Your task to perform on an android device: stop showing notifications on the lock screen Image 0: 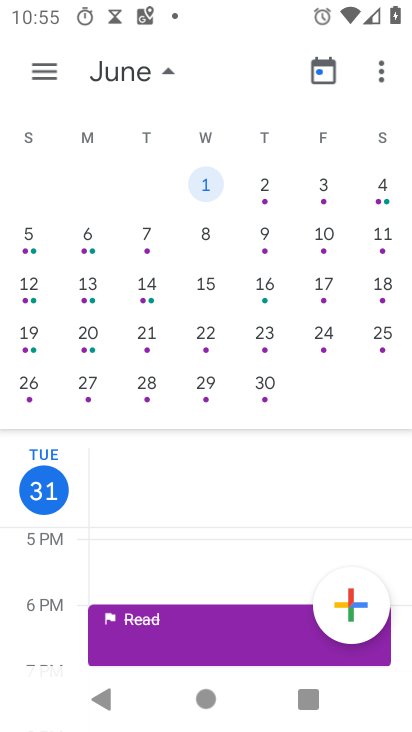
Step 0: press home button
Your task to perform on an android device: stop showing notifications on the lock screen Image 1: 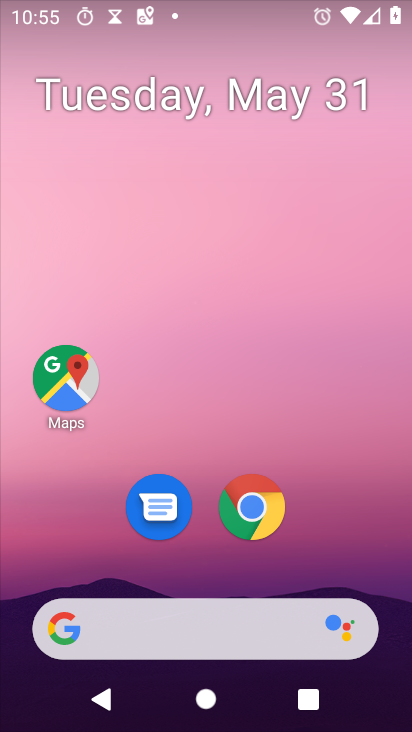
Step 1: drag from (16, 527) to (271, 140)
Your task to perform on an android device: stop showing notifications on the lock screen Image 2: 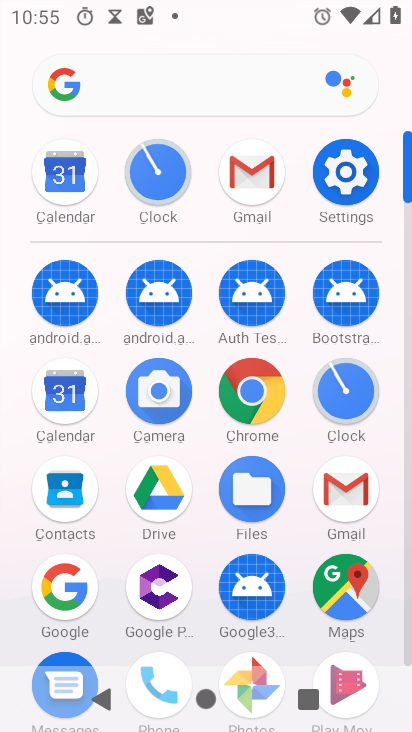
Step 2: click (354, 179)
Your task to perform on an android device: stop showing notifications on the lock screen Image 3: 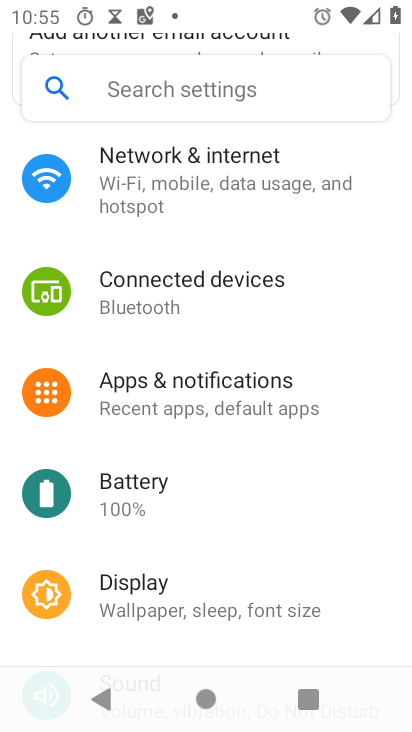
Step 3: click (182, 384)
Your task to perform on an android device: stop showing notifications on the lock screen Image 4: 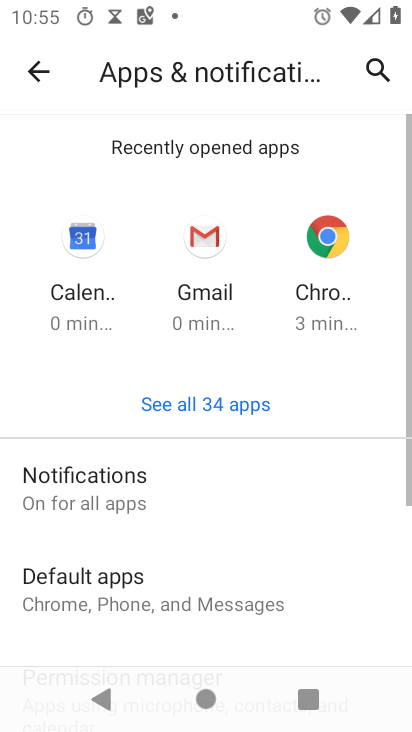
Step 4: click (126, 481)
Your task to perform on an android device: stop showing notifications on the lock screen Image 5: 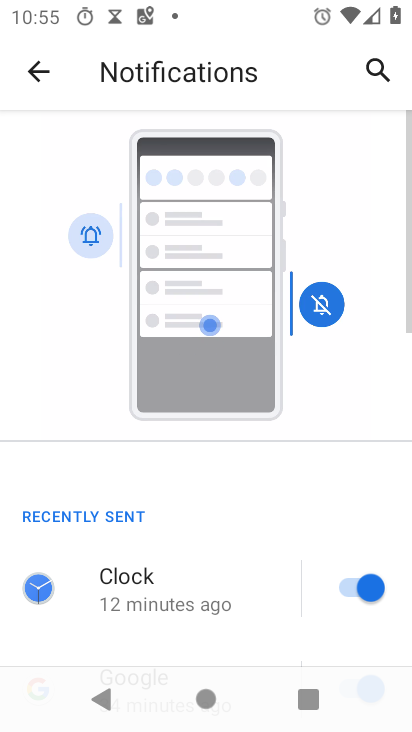
Step 5: drag from (17, 469) to (233, 71)
Your task to perform on an android device: stop showing notifications on the lock screen Image 6: 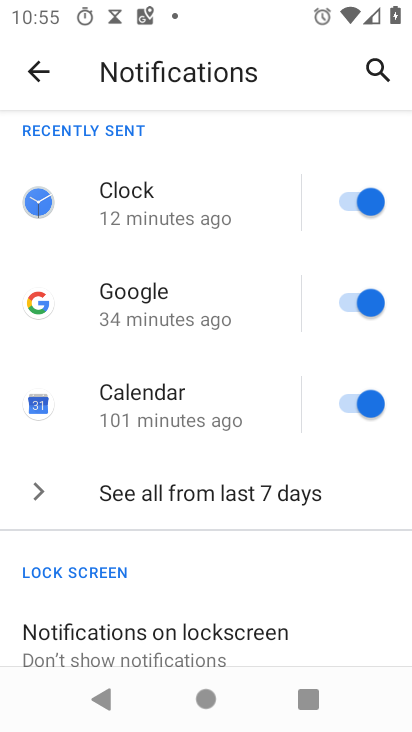
Step 6: click (43, 627)
Your task to perform on an android device: stop showing notifications on the lock screen Image 7: 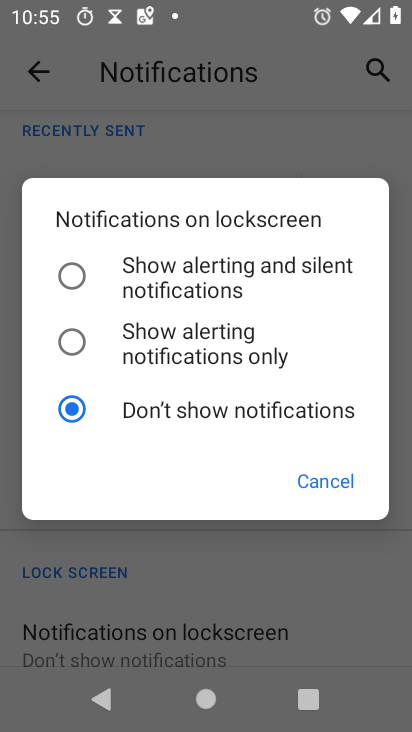
Step 7: task complete